Your task to perform on an android device: Open settings Image 0: 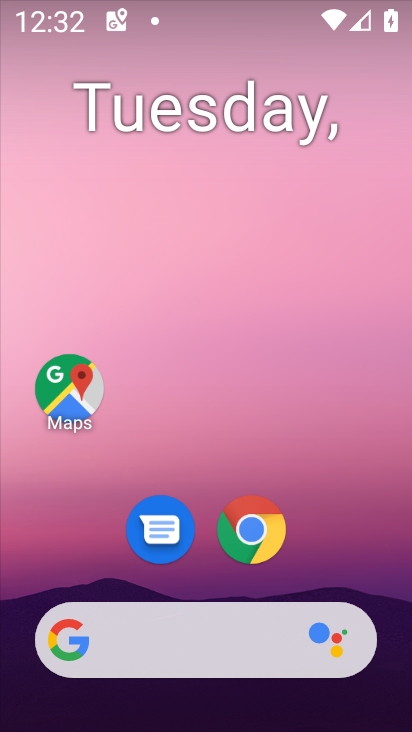
Step 0: drag from (148, 582) to (240, 115)
Your task to perform on an android device: Open settings Image 1: 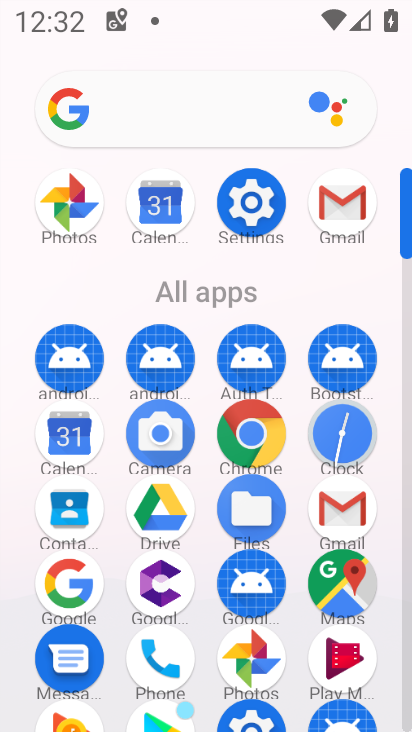
Step 1: click (254, 193)
Your task to perform on an android device: Open settings Image 2: 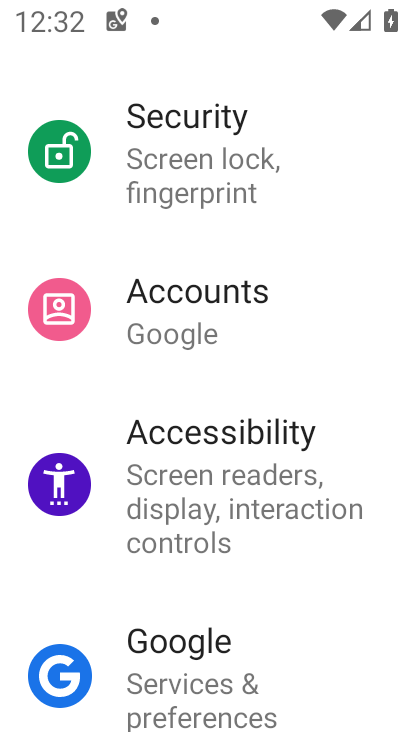
Step 2: task complete